Your task to perform on an android device: toggle data saver in the chrome app Image 0: 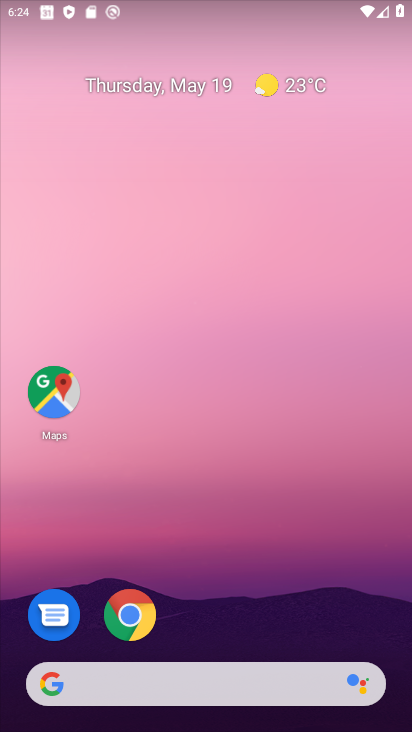
Step 0: drag from (385, 655) to (273, 125)
Your task to perform on an android device: toggle data saver in the chrome app Image 1: 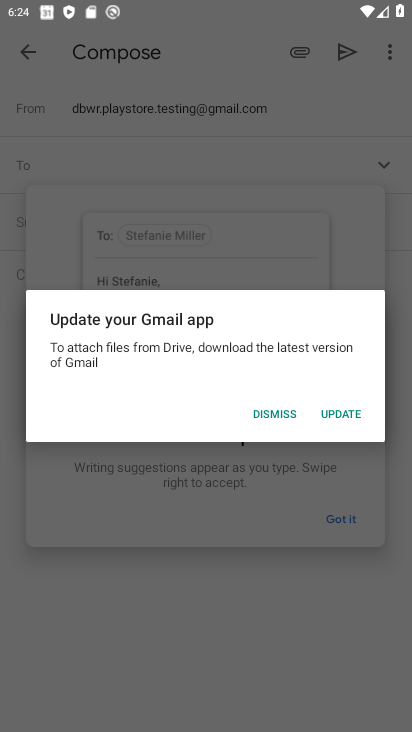
Step 1: click (369, 150)
Your task to perform on an android device: toggle data saver in the chrome app Image 2: 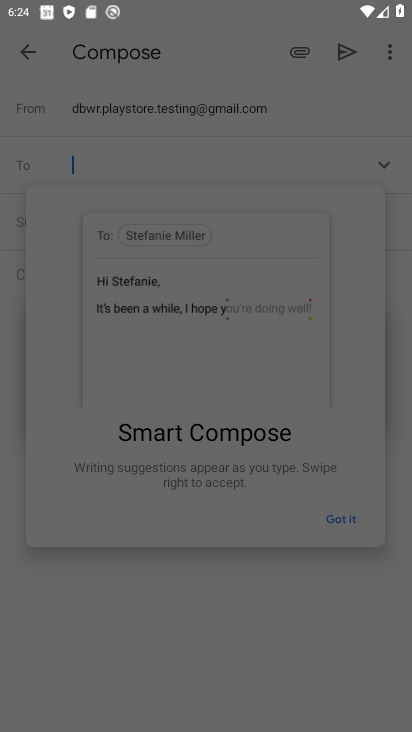
Step 2: press home button
Your task to perform on an android device: toggle data saver in the chrome app Image 3: 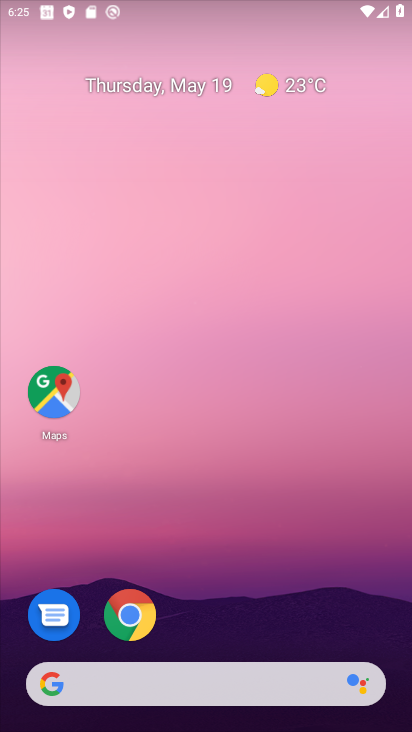
Step 3: drag from (366, 620) to (317, 101)
Your task to perform on an android device: toggle data saver in the chrome app Image 4: 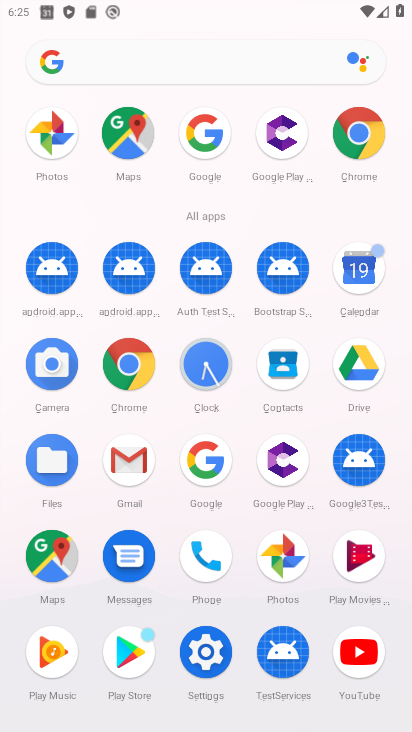
Step 4: click (355, 151)
Your task to perform on an android device: toggle data saver in the chrome app Image 5: 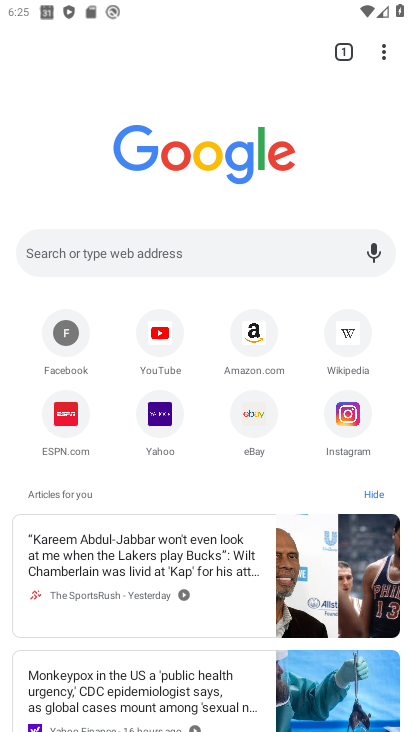
Step 5: click (381, 58)
Your task to perform on an android device: toggle data saver in the chrome app Image 6: 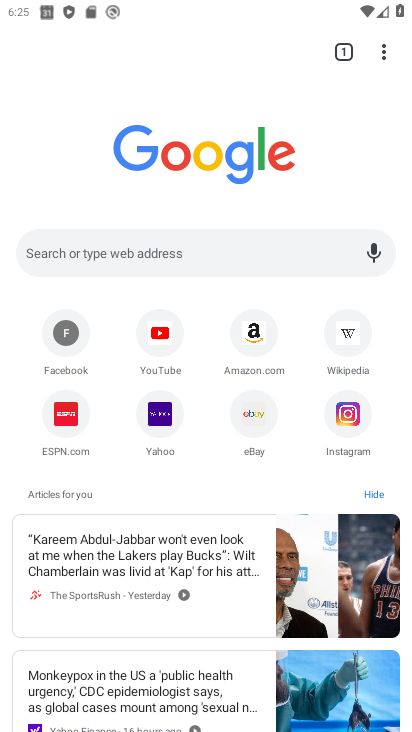
Step 6: click (379, 41)
Your task to perform on an android device: toggle data saver in the chrome app Image 7: 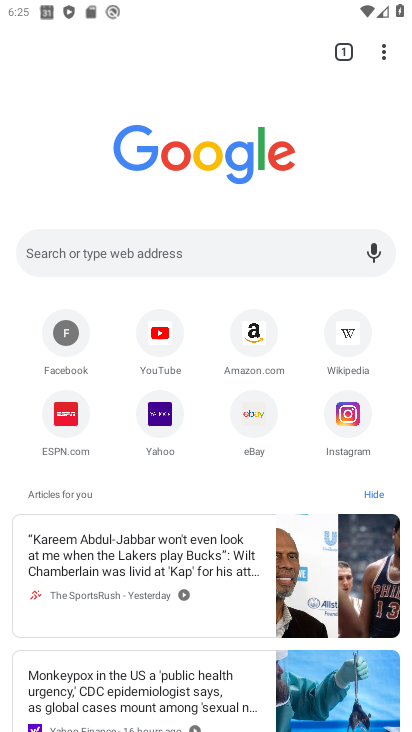
Step 7: click (384, 42)
Your task to perform on an android device: toggle data saver in the chrome app Image 8: 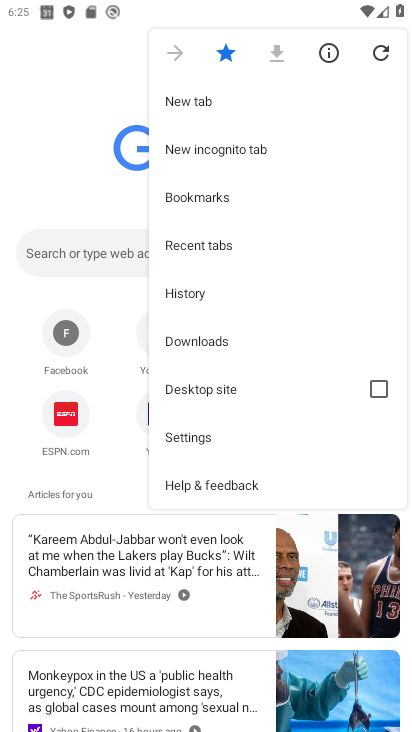
Step 8: click (226, 441)
Your task to perform on an android device: toggle data saver in the chrome app Image 9: 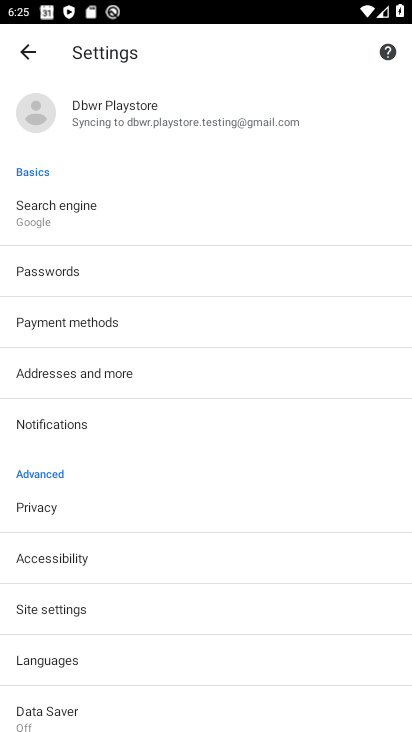
Step 9: click (119, 730)
Your task to perform on an android device: toggle data saver in the chrome app Image 10: 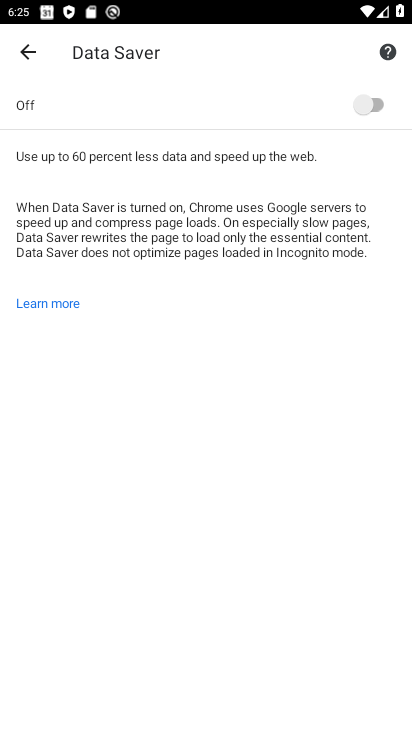
Step 10: click (351, 92)
Your task to perform on an android device: toggle data saver in the chrome app Image 11: 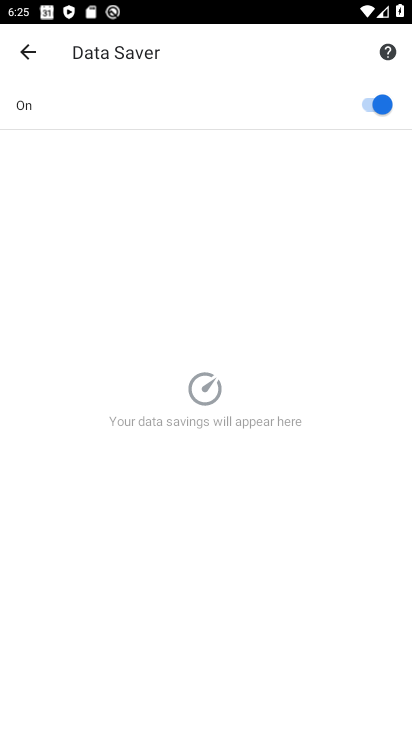
Step 11: task complete